Your task to perform on an android device: change your default location settings in chrome Image 0: 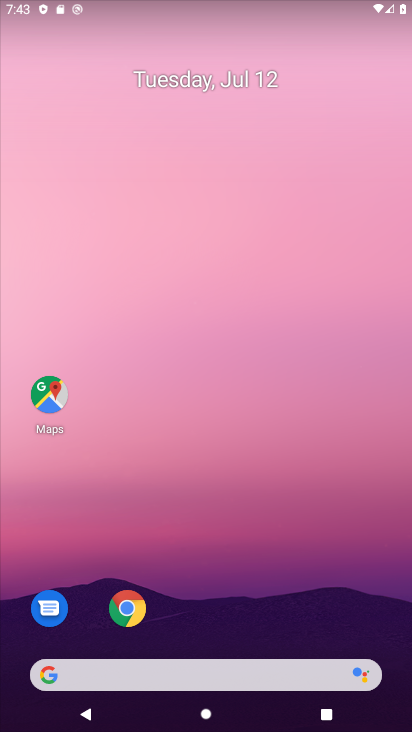
Step 0: drag from (130, 679) to (296, 316)
Your task to perform on an android device: change your default location settings in chrome Image 1: 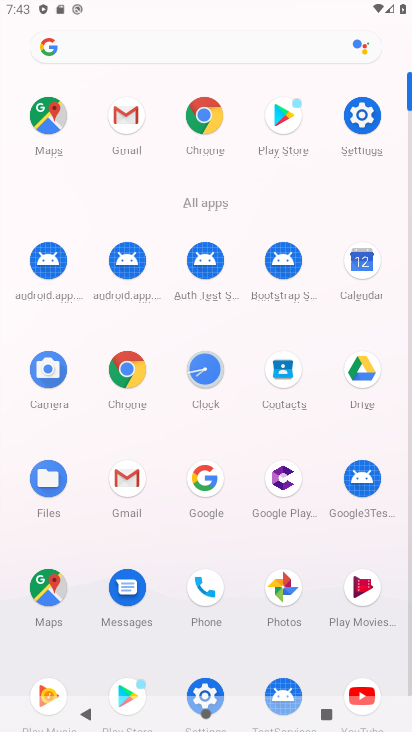
Step 1: click (206, 119)
Your task to perform on an android device: change your default location settings in chrome Image 2: 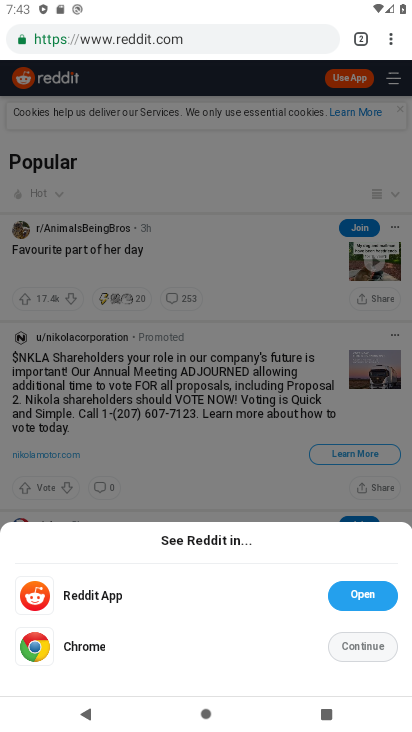
Step 2: drag from (394, 49) to (266, 479)
Your task to perform on an android device: change your default location settings in chrome Image 3: 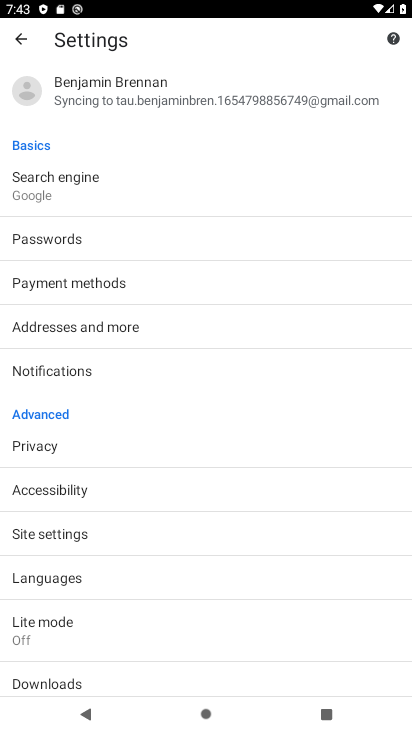
Step 3: click (53, 532)
Your task to perform on an android device: change your default location settings in chrome Image 4: 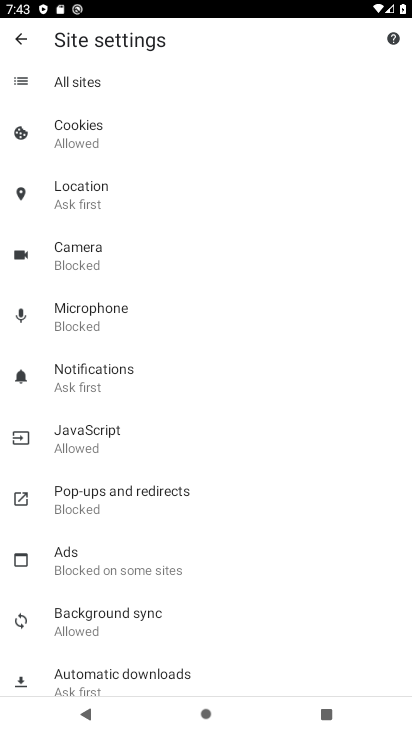
Step 4: click (76, 204)
Your task to perform on an android device: change your default location settings in chrome Image 5: 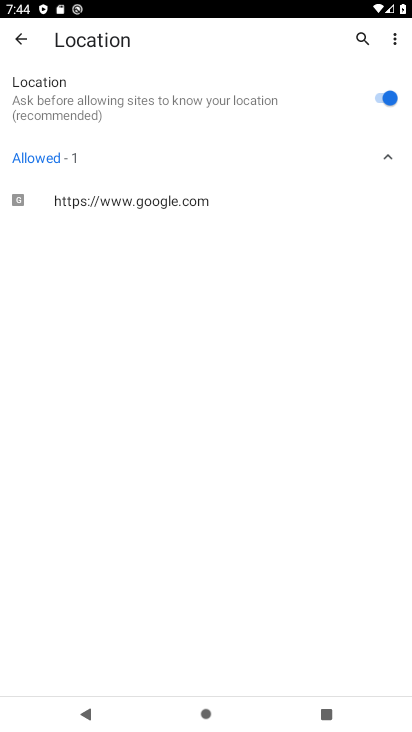
Step 5: click (377, 100)
Your task to perform on an android device: change your default location settings in chrome Image 6: 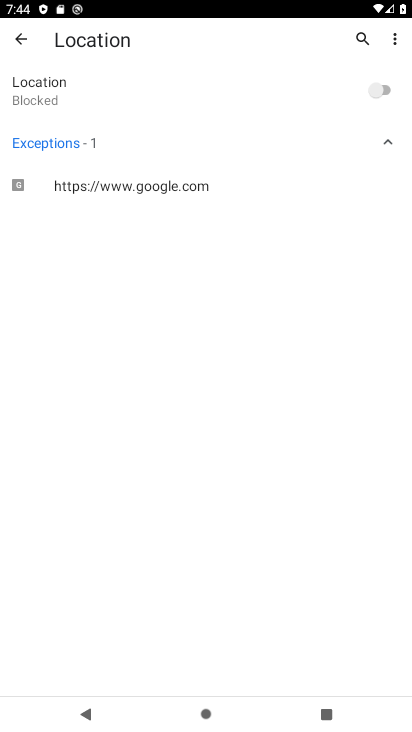
Step 6: task complete